Your task to perform on an android device: add a contact in the contacts app Image 0: 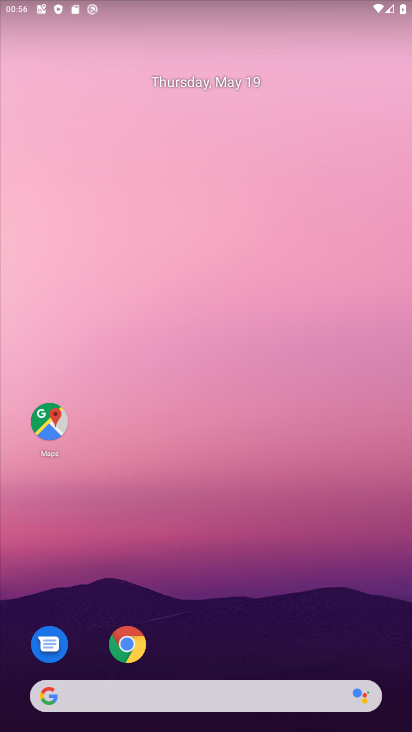
Step 0: drag from (278, 625) to (320, 276)
Your task to perform on an android device: add a contact in the contacts app Image 1: 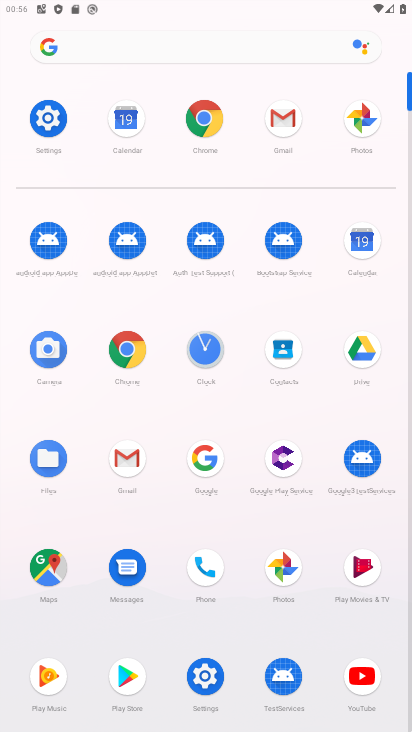
Step 1: drag from (207, 627) to (333, 238)
Your task to perform on an android device: add a contact in the contacts app Image 2: 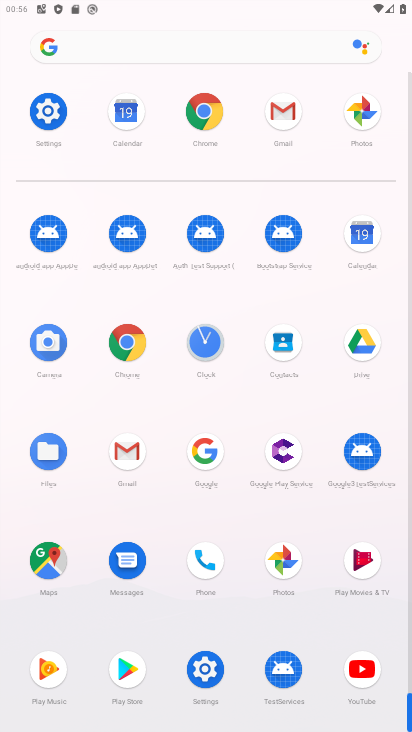
Step 2: click (284, 340)
Your task to perform on an android device: add a contact in the contacts app Image 3: 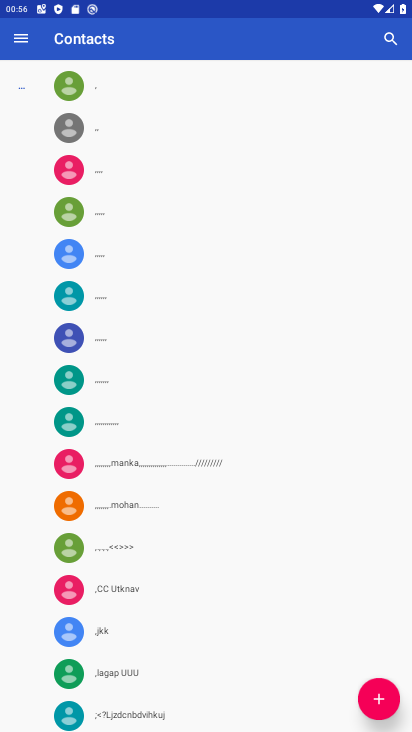
Step 3: click (372, 701)
Your task to perform on an android device: add a contact in the contacts app Image 4: 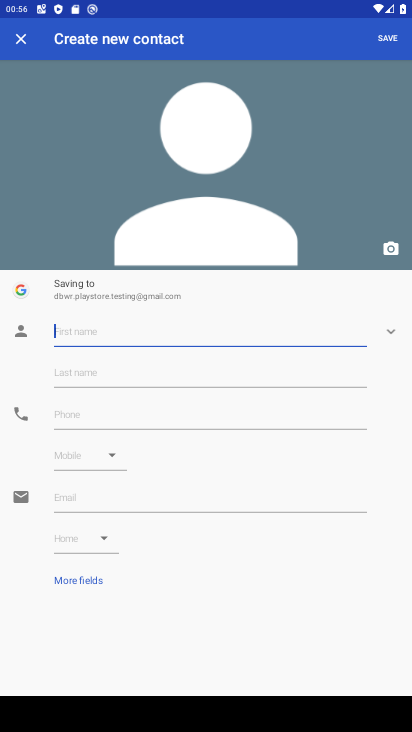
Step 4: type "oini"
Your task to perform on an android device: add a contact in the contacts app Image 5: 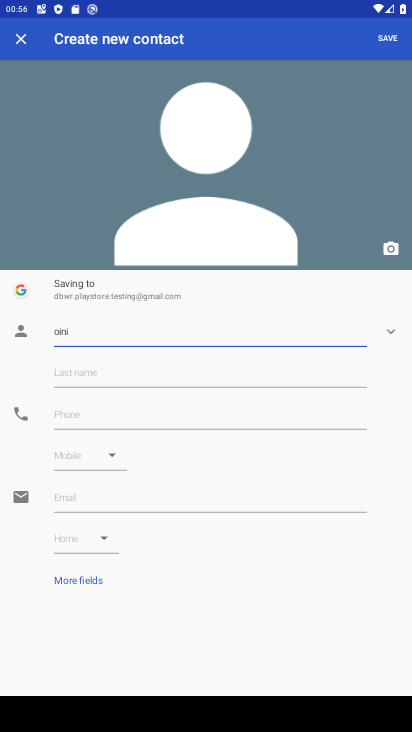
Step 5: click (262, 408)
Your task to perform on an android device: add a contact in the contacts app Image 6: 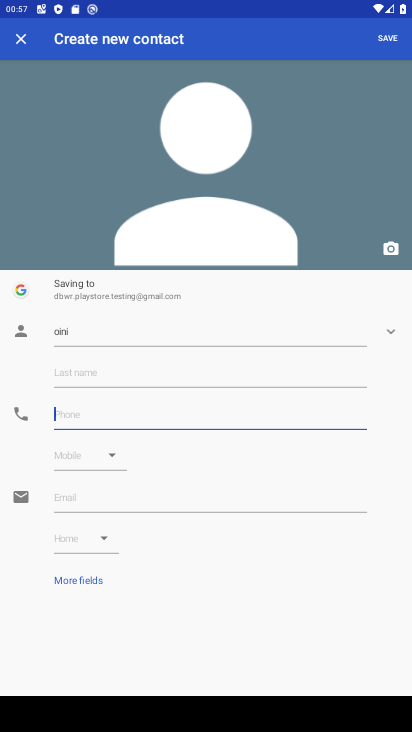
Step 6: type "0978768768"
Your task to perform on an android device: add a contact in the contacts app Image 7: 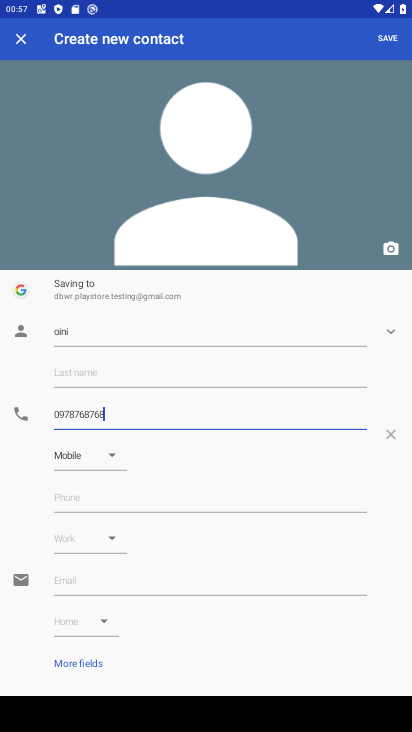
Step 7: click (399, 34)
Your task to perform on an android device: add a contact in the contacts app Image 8: 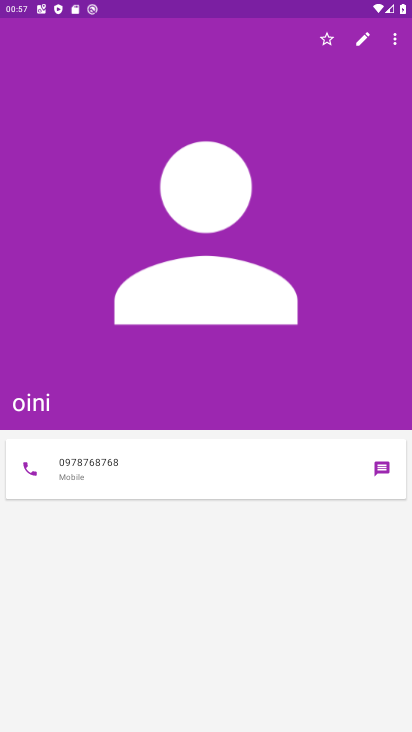
Step 8: task complete